Your task to perform on an android device: open app "Flipkart Online Shopping App" (install if not already installed) and enter user name: "fostered@gmail.com" and password: "negotiated" Image 0: 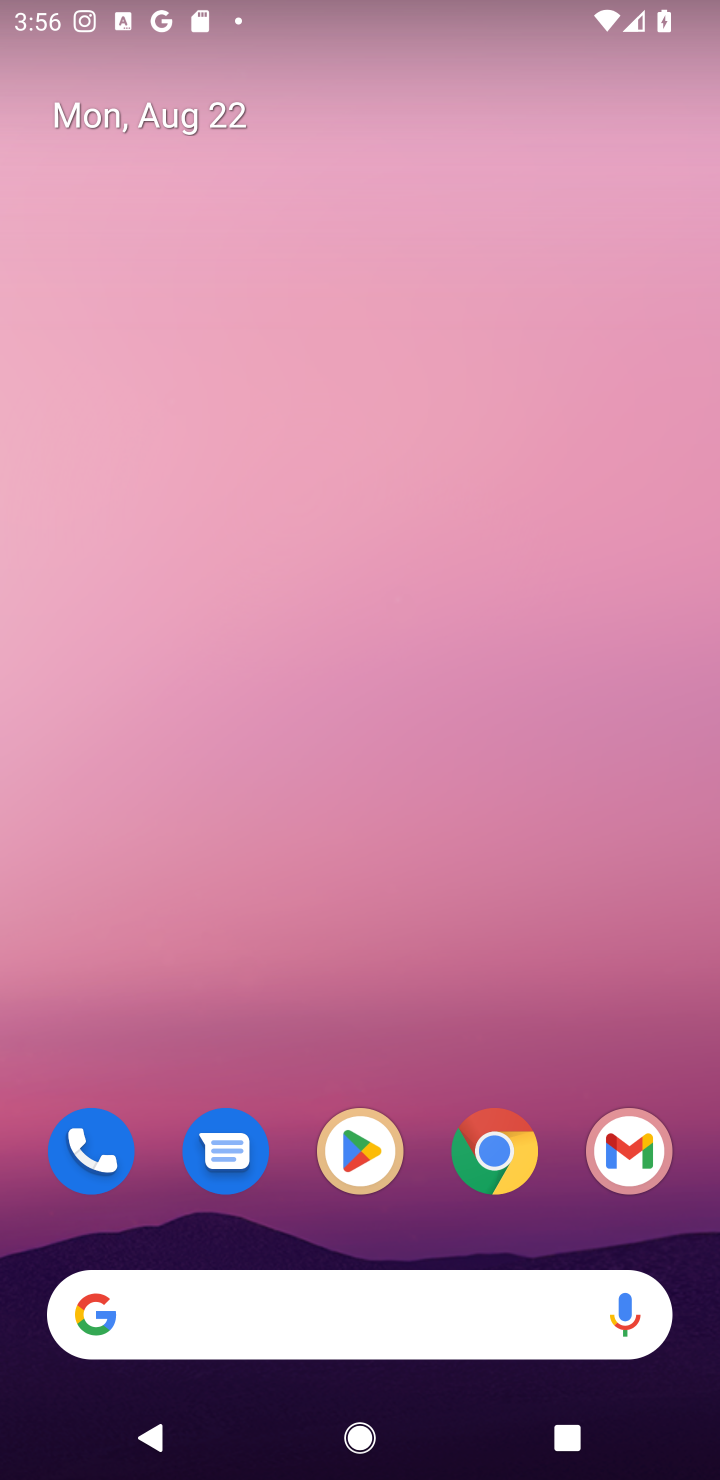
Step 0: press home button
Your task to perform on an android device: open app "Flipkart Online Shopping App" (install if not already installed) and enter user name: "fostered@gmail.com" and password: "negotiated" Image 1: 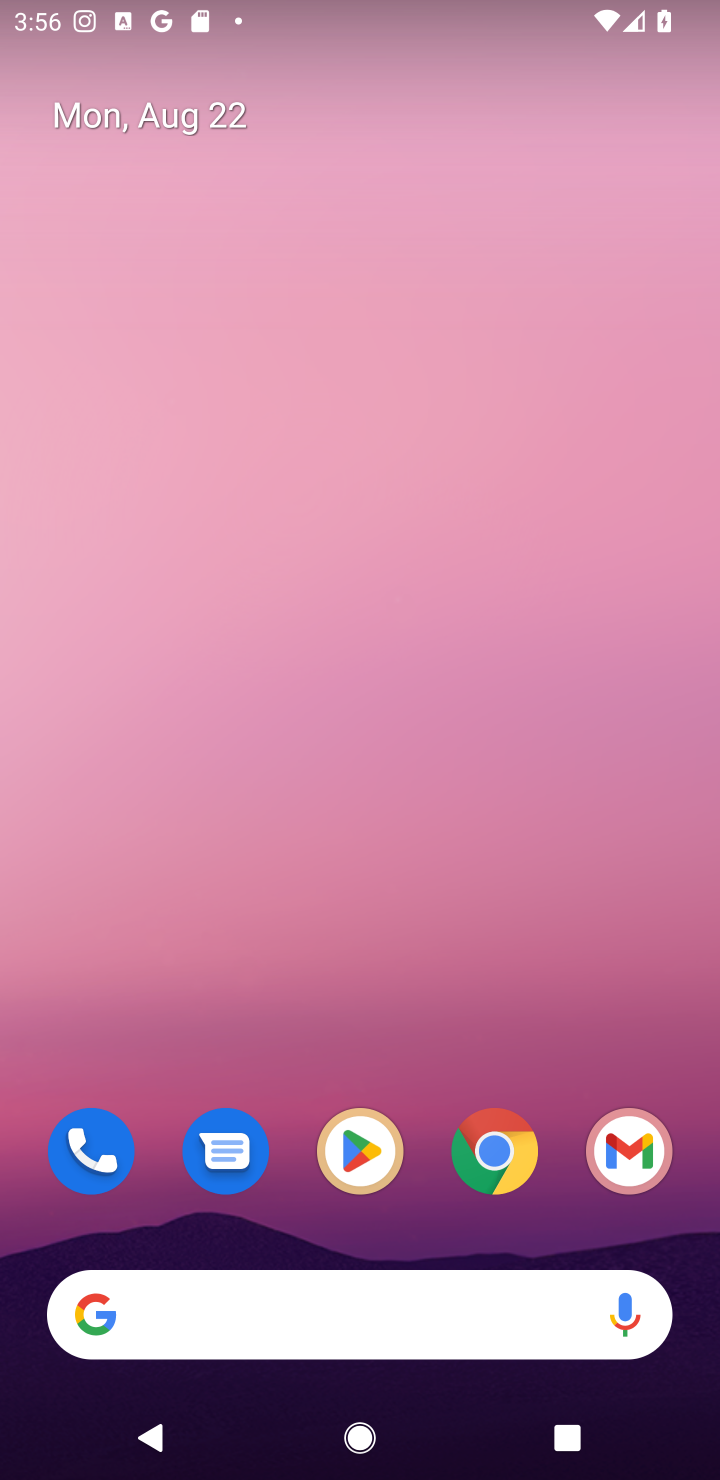
Step 1: click (365, 1161)
Your task to perform on an android device: open app "Flipkart Online Shopping App" (install if not already installed) and enter user name: "fostered@gmail.com" and password: "negotiated" Image 2: 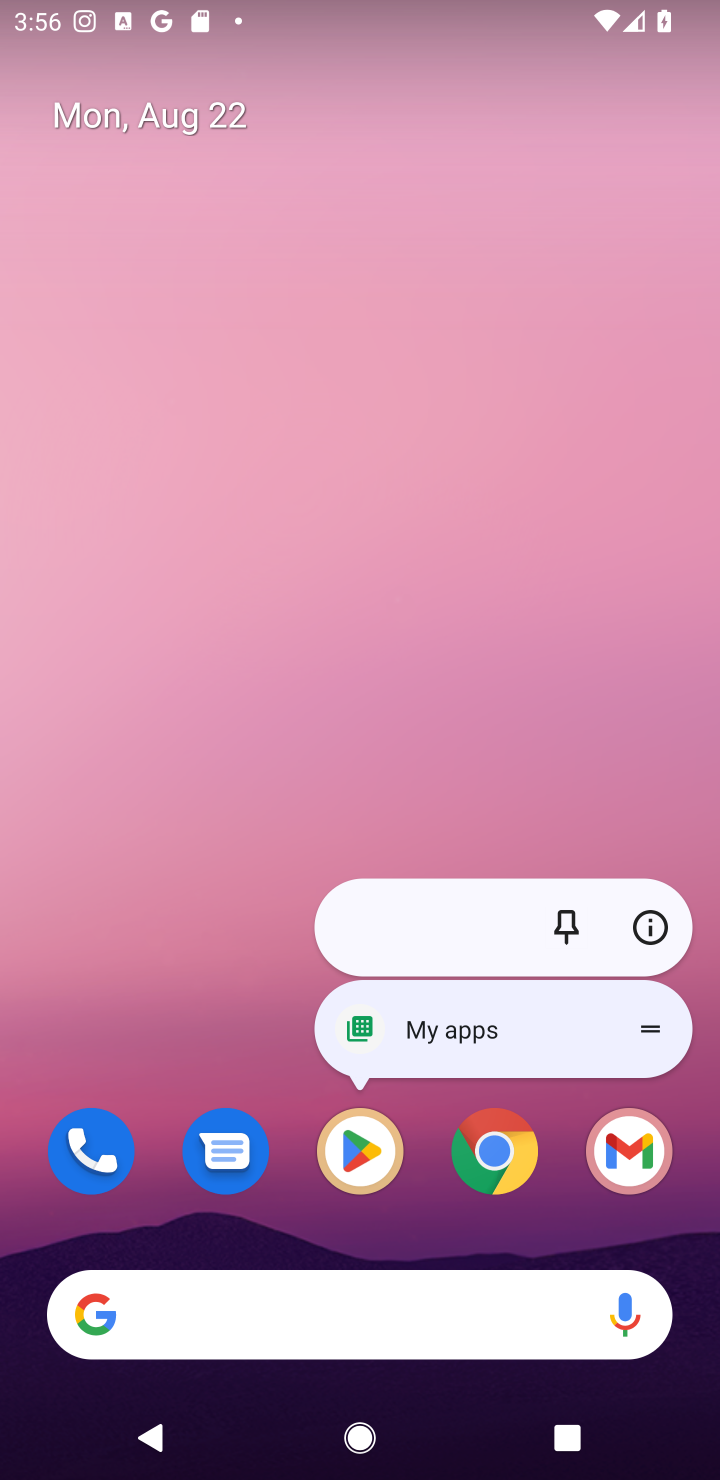
Step 2: click (345, 1136)
Your task to perform on an android device: open app "Flipkart Online Shopping App" (install if not already installed) and enter user name: "fostered@gmail.com" and password: "negotiated" Image 3: 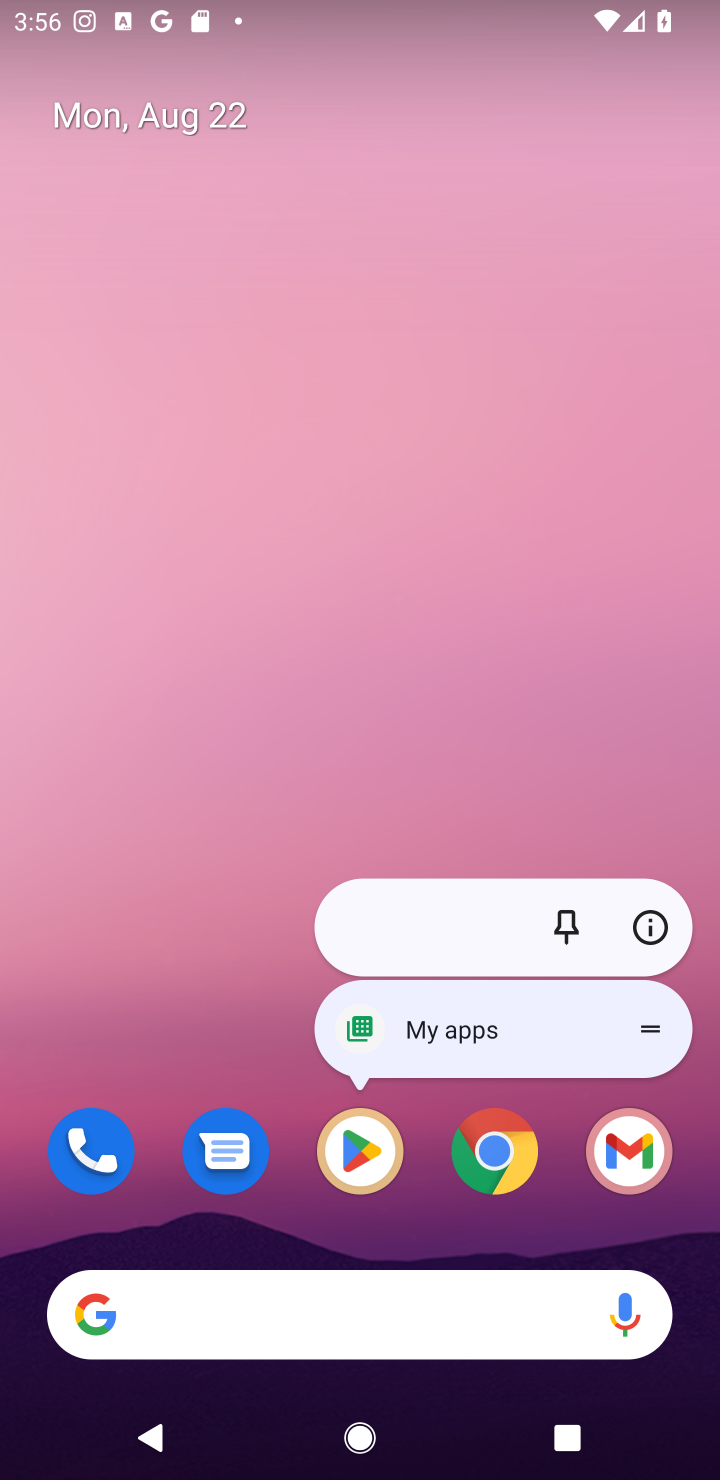
Step 3: click (351, 1166)
Your task to perform on an android device: open app "Flipkart Online Shopping App" (install if not already installed) and enter user name: "fostered@gmail.com" and password: "negotiated" Image 4: 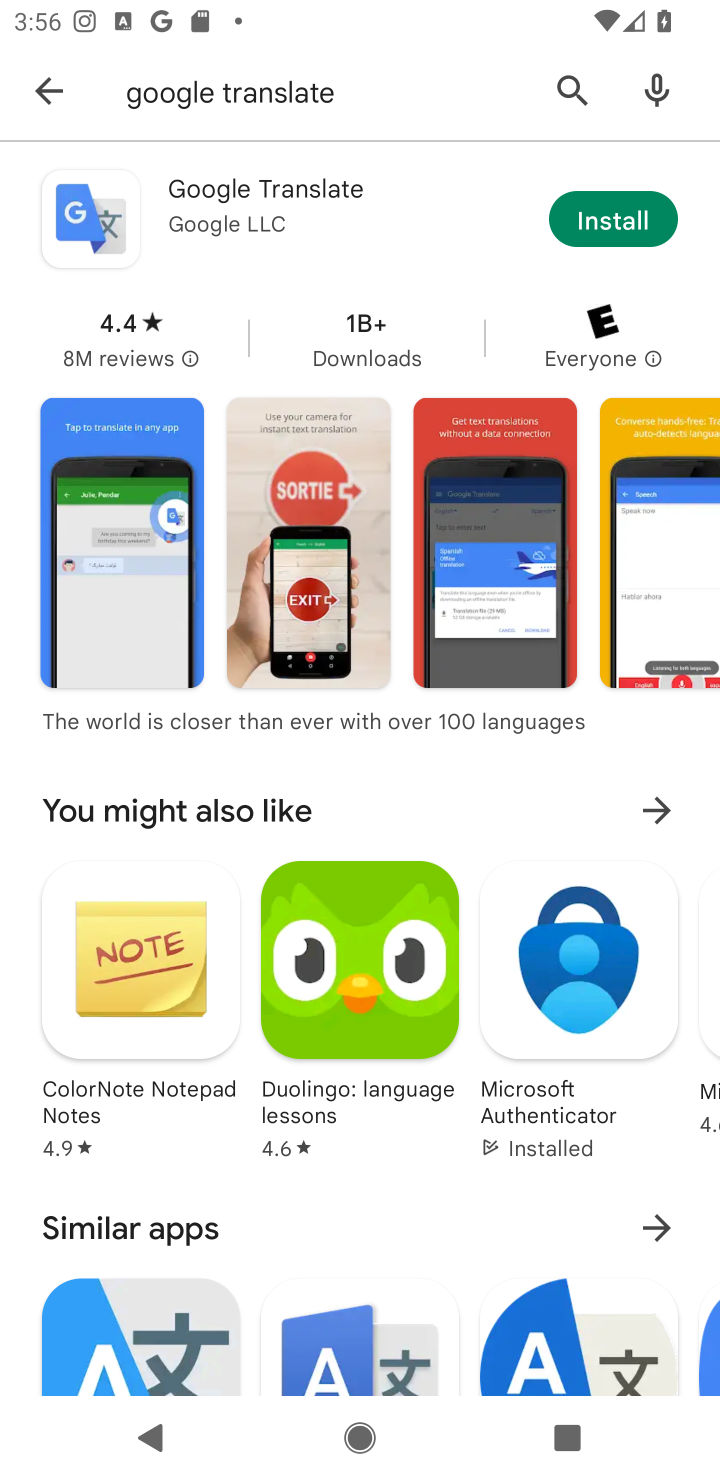
Step 4: click (568, 83)
Your task to perform on an android device: open app "Flipkart Online Shopping App" (install if not already installed) and enter user name: "fostered@gmail.com" and password: "negotiated" Image 5: 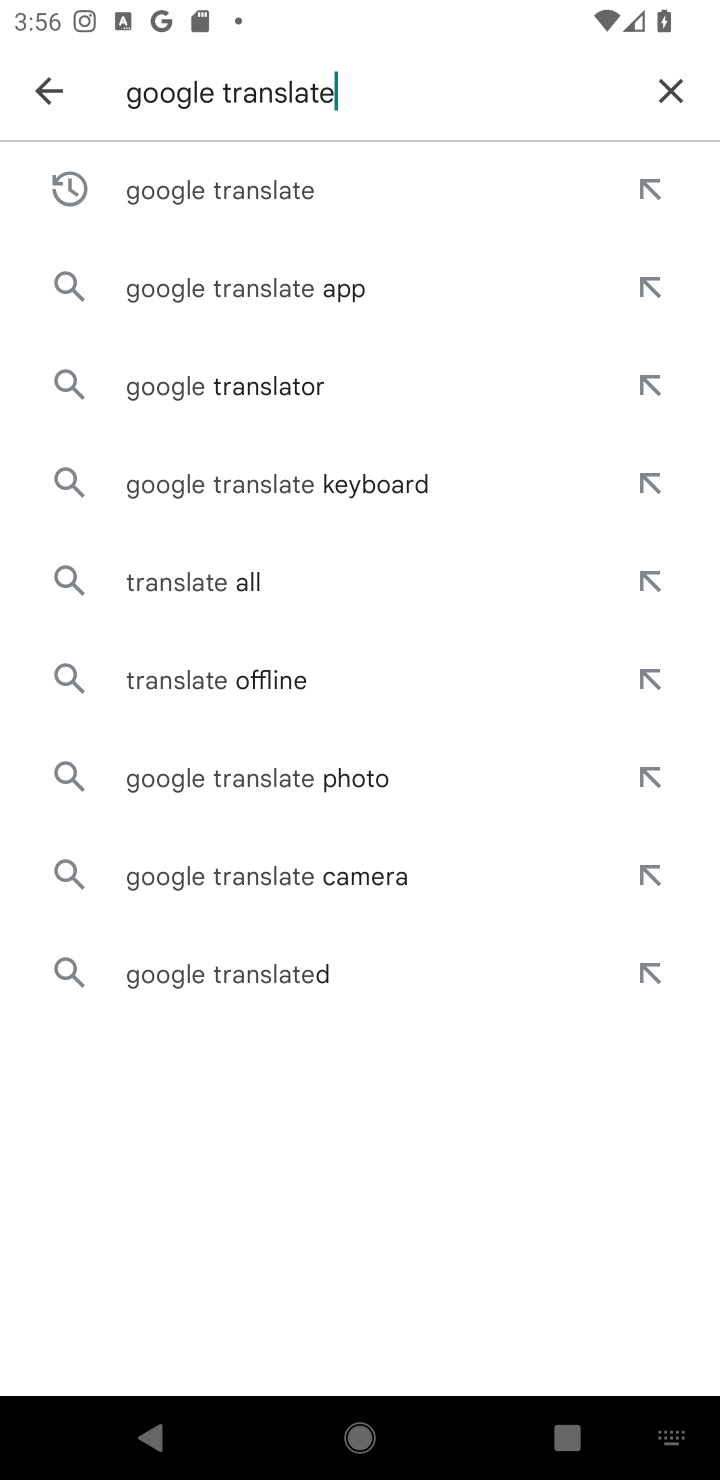
Step 5: click (671, 90)
Your task to perform on an android device: open app "Flipkart Online Shopping App" (install if not already installed) and enter user name: "fostered@gmail.com" and password: "negotiated" Image 6: 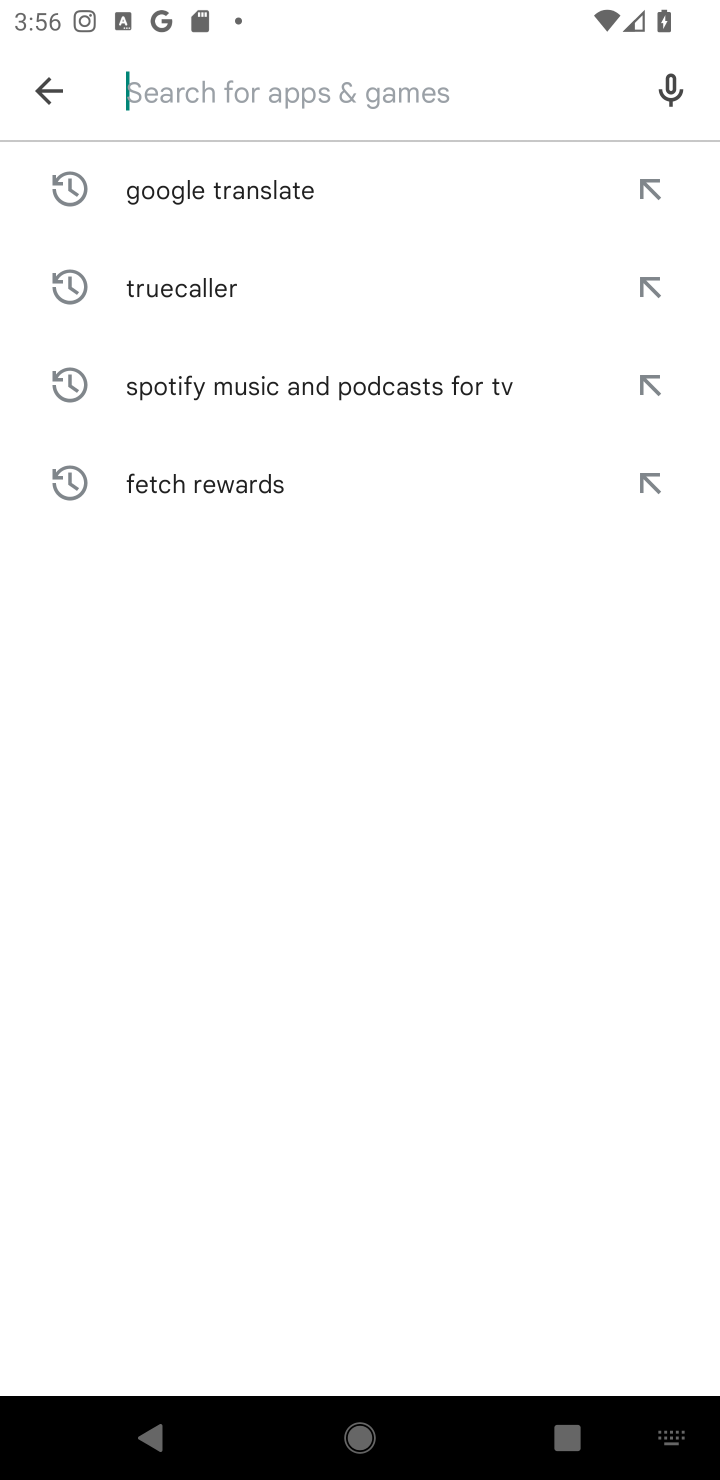
Step 6: type "Flipkart Online Shopping App"
Your task to perform on an android device: open app "Flipkart Online Shopping App" (install if not already installed) and enter user name: "fostered@gmail.com" and password: "negotiated" Image 7: 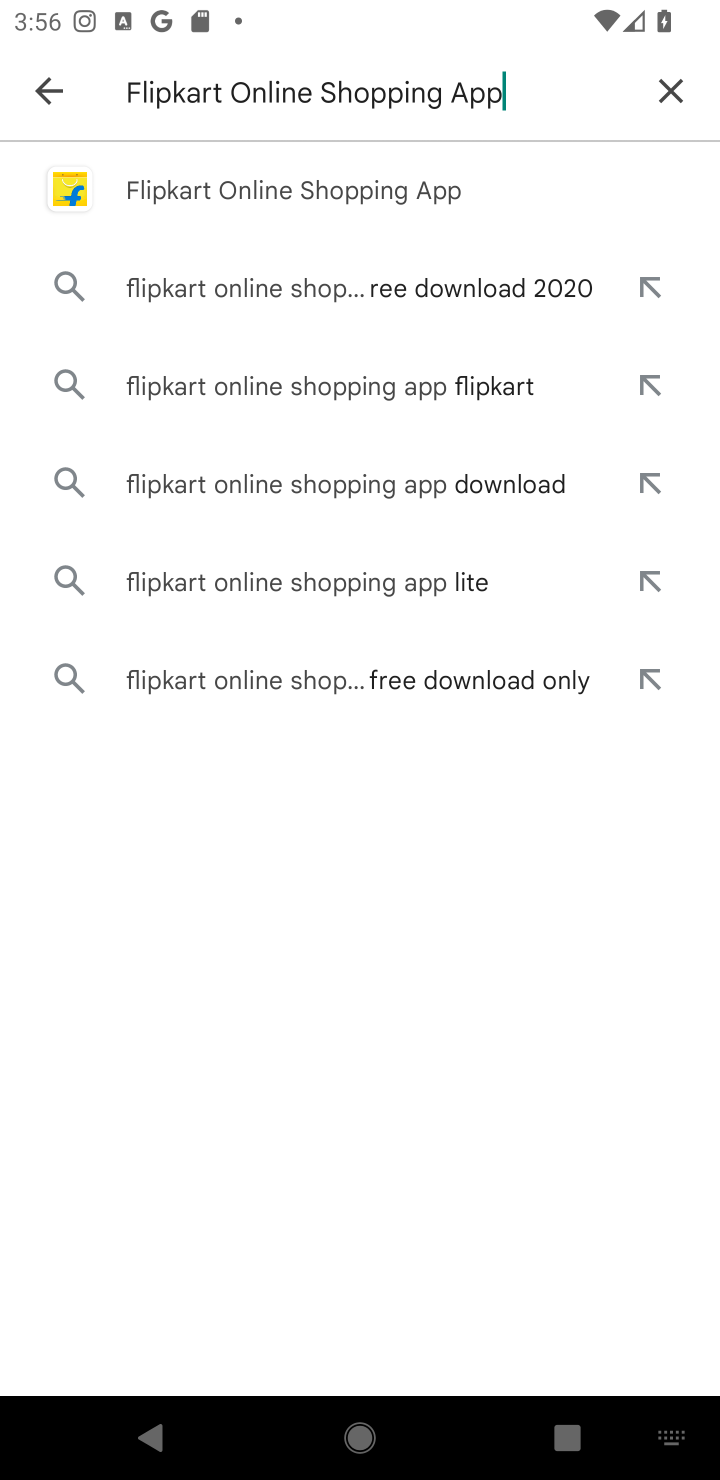
Step 7: click (309, 172)
Your task to perform on an android device: open app "Flipkart Online Shopping App" (install if not already installed) and enter user name: "fostered@gmail.com" and password: "negotiated" Image 8: 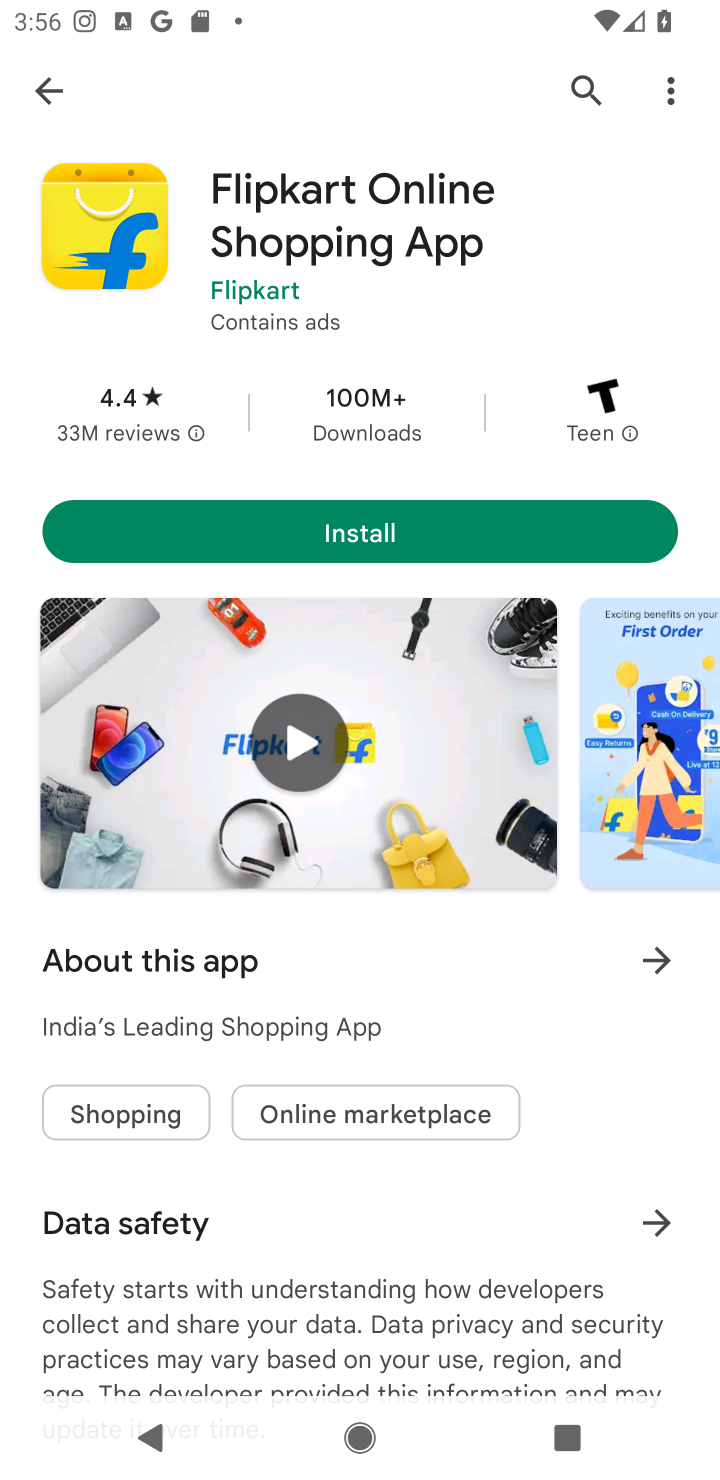
Step 8: click (353, 536)
Your task to perform on an android device: open app "Flipkart Online Shopping App" (install if not already installed) and enter user name: "fostered@gmail.com" and password: "negotiated" Image 9: 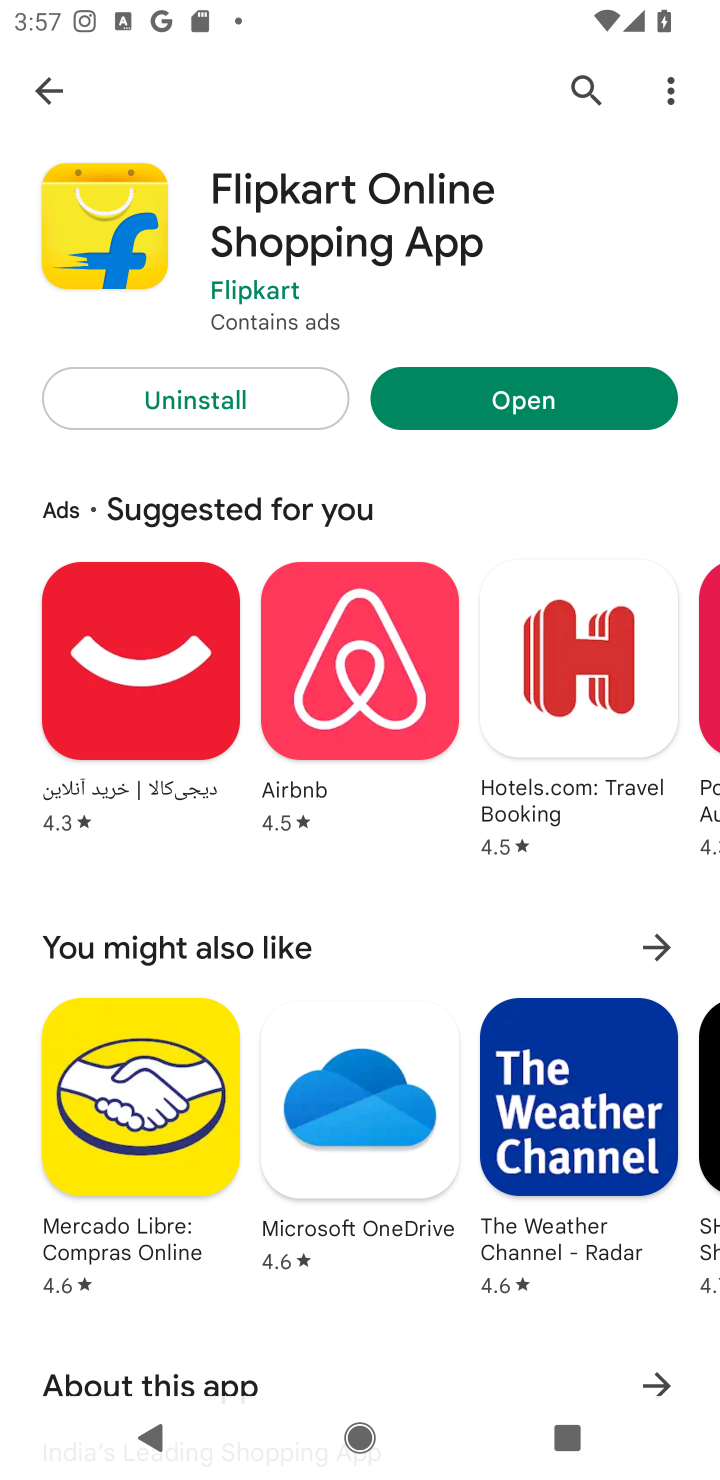
Step 9: click (566, 410)
Your task to perform on an android device: open app "Flipkart Online Shopping App" (install if not already installed) and enter user name: "fostered@gmail.com" and password: "negotiated" Image 10: 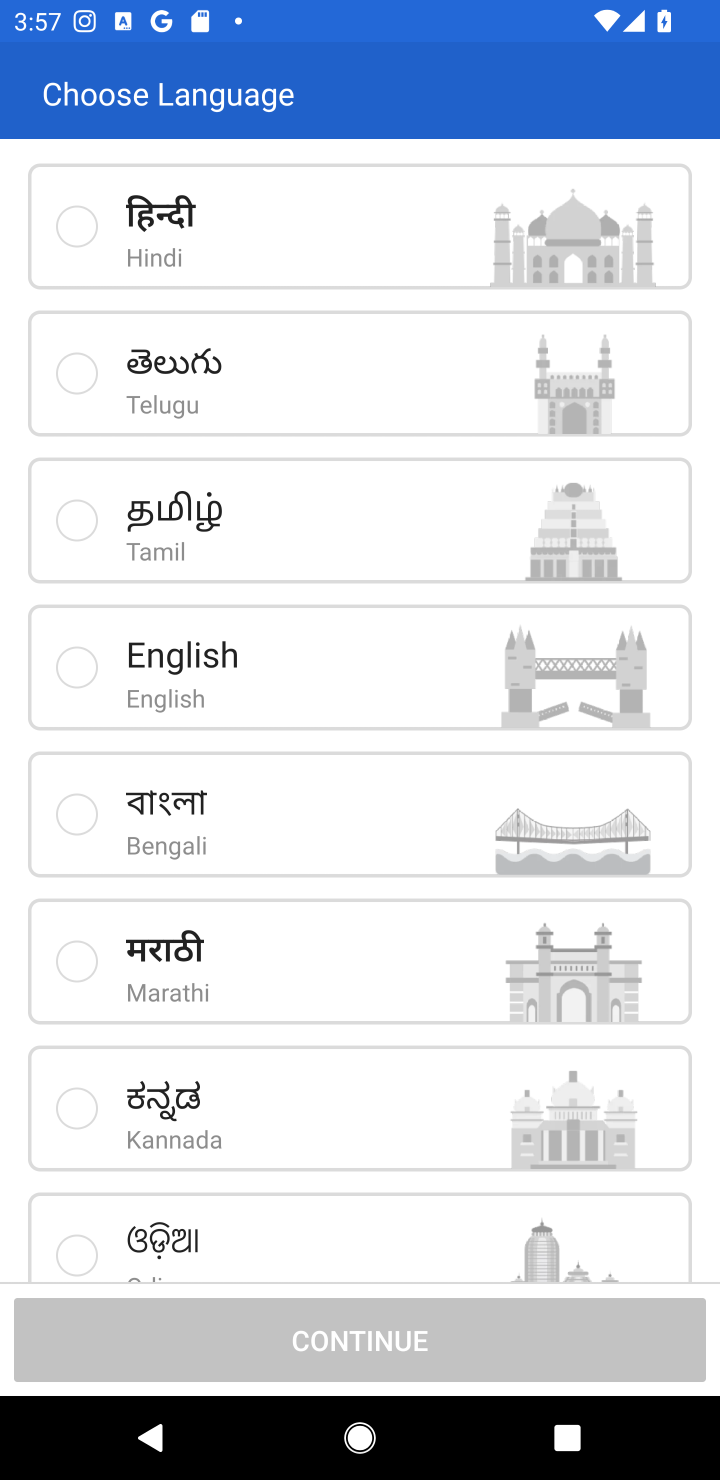
Step 10: click (193, 672)
Your task to perform on an android device: open app "Flipkart Online Shopping App" (install if not already installed) and enter user name: "fostered@gmail.com" and password: "negotiated" Image 11: 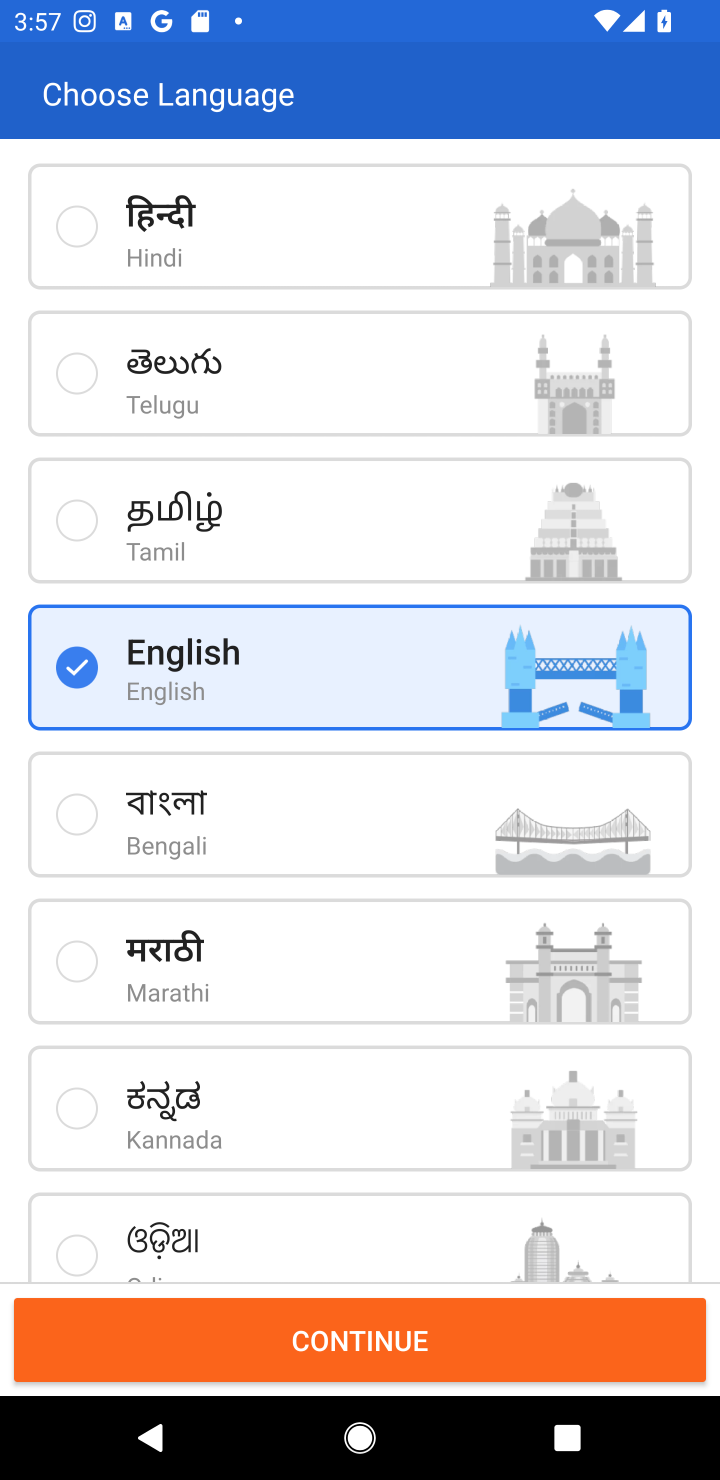
Step 11: click (380, 1324)
Your task to perform on an android device: open app "Flipkart Online Shopping App" (install if not already installed) and enter user name: "fostered@gmail.com" and password: "negotiated" Image 12: 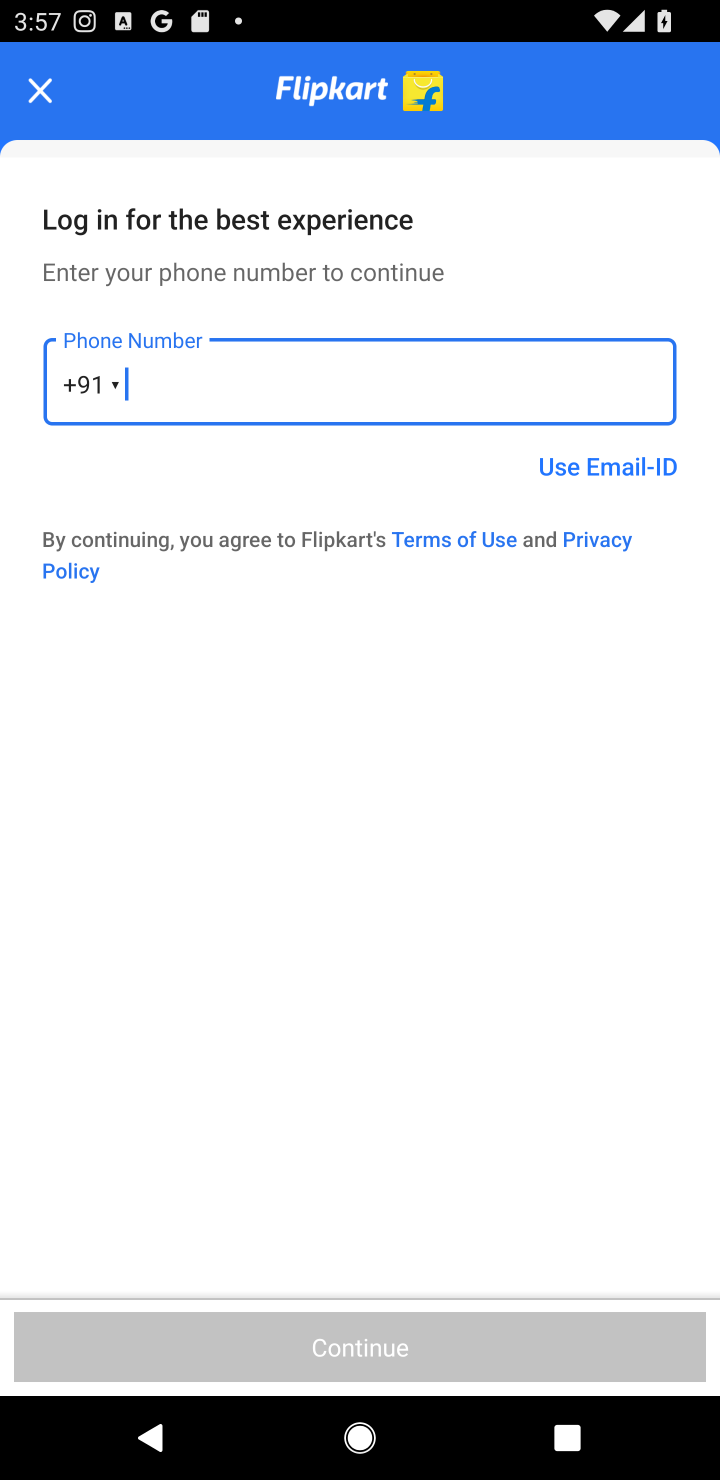
Step 12: click (631, 467)
Your task to perform on an android device: open app "Flipkart Online Shopping App" (install if not already installed) and enter user name: "fostered@gmail.com" and password: "negotiated" Image 13: 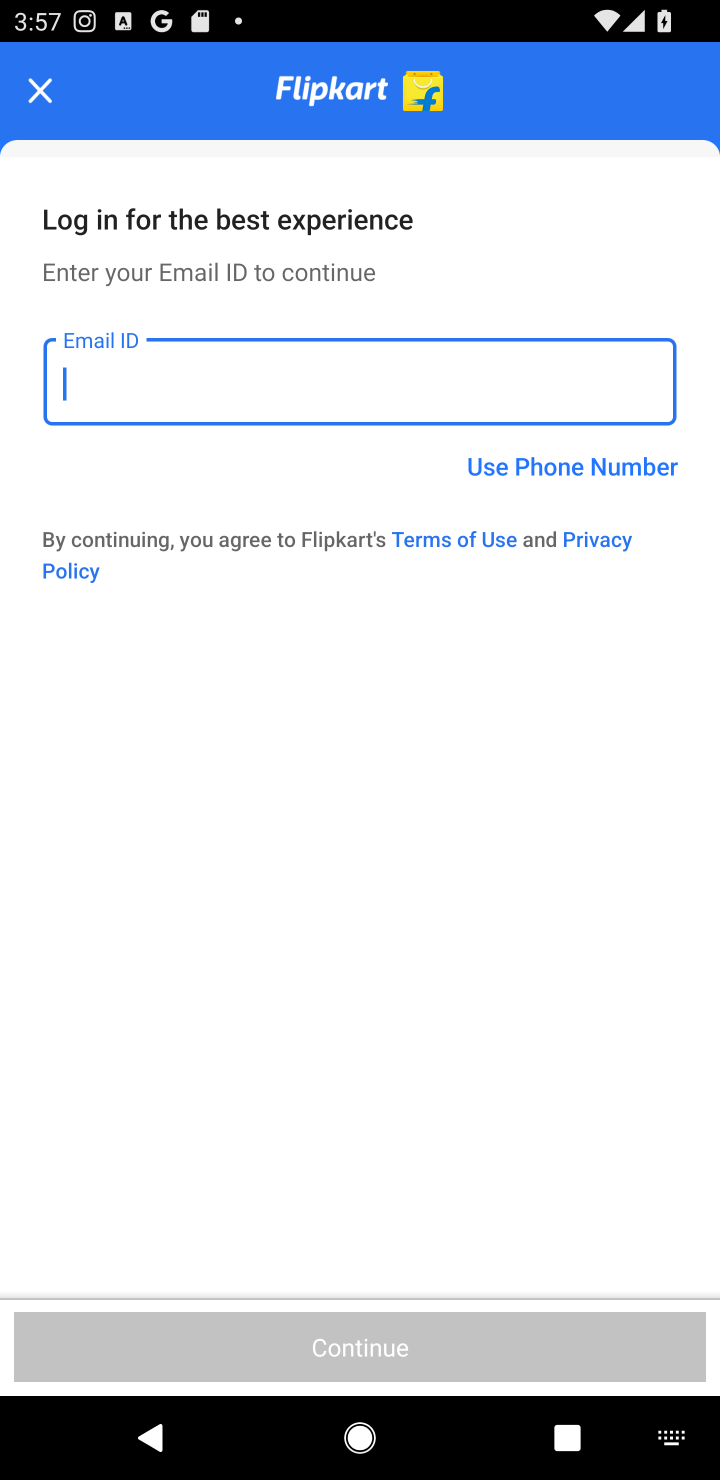
Step 13: type "fostered@gmail.com"
Your task to perform on an android device: open app "Flipkart Online Shopping App" (install if not already installed) and enter user name: "fostered@gmail.com" and password: "negotiated" Image 14: 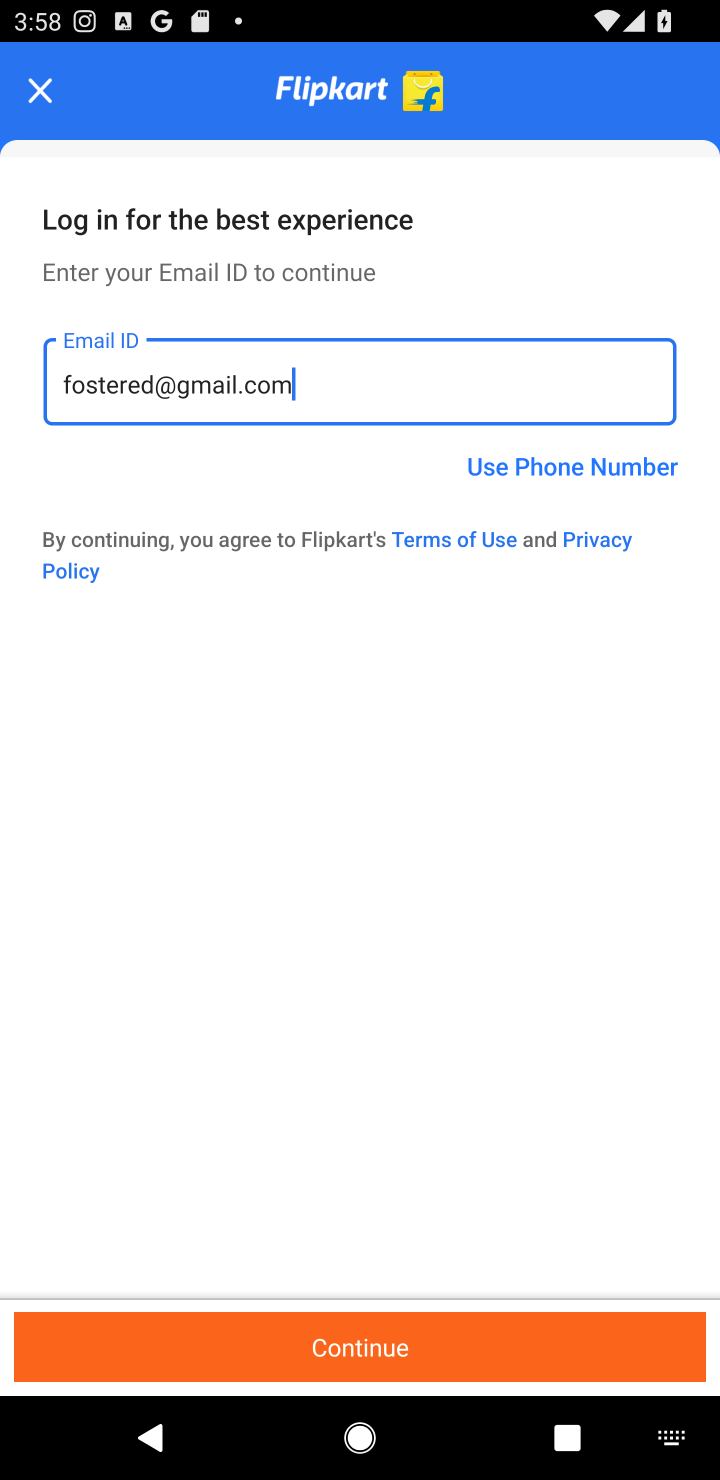
Step 14: click (448, 1353)
Your task to perform on an android device: open app "Flipkart Online Shopping App" (install if not already installed) and enter user name: "fostered@gmail.com" and password: "negotiated" Image 15: 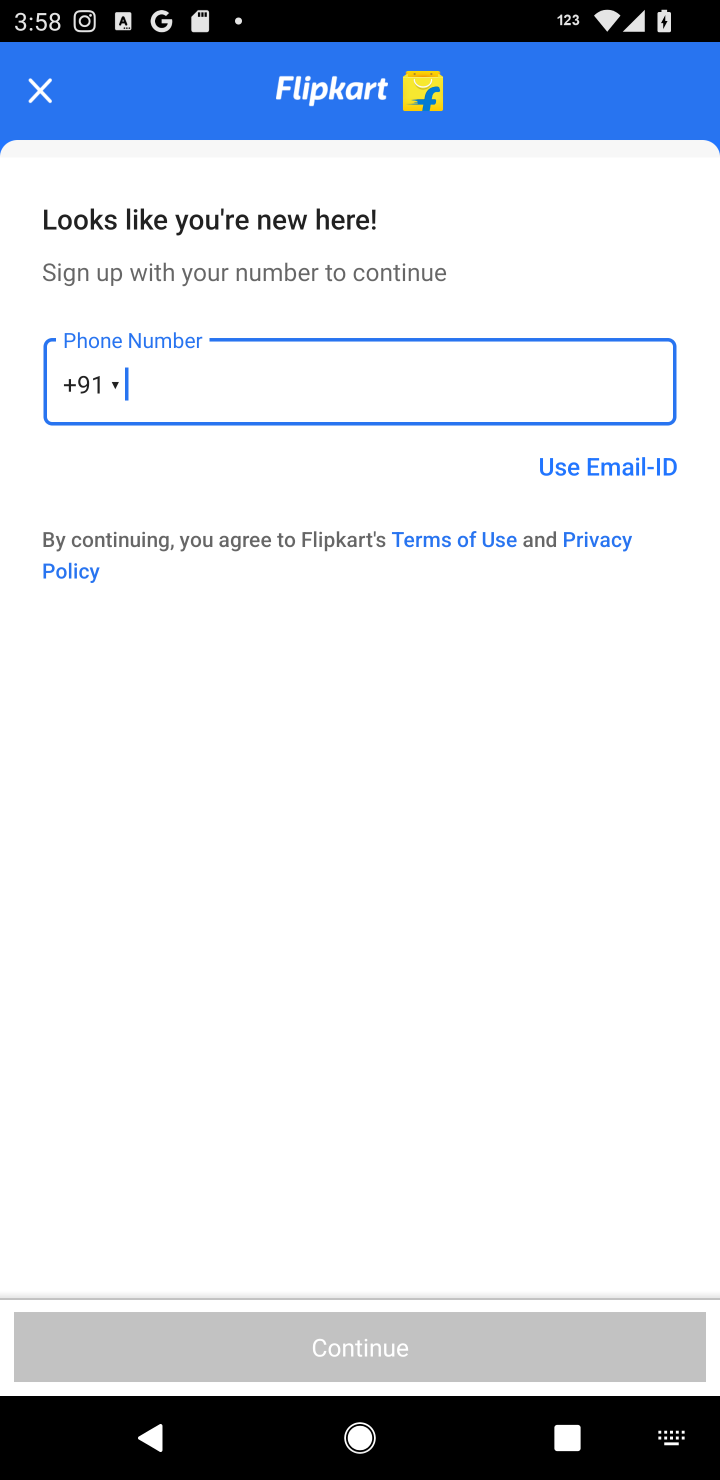
Step 15: task complete